Your task to perform on an android device: turn off priority inbox in the gmail app Image 0: 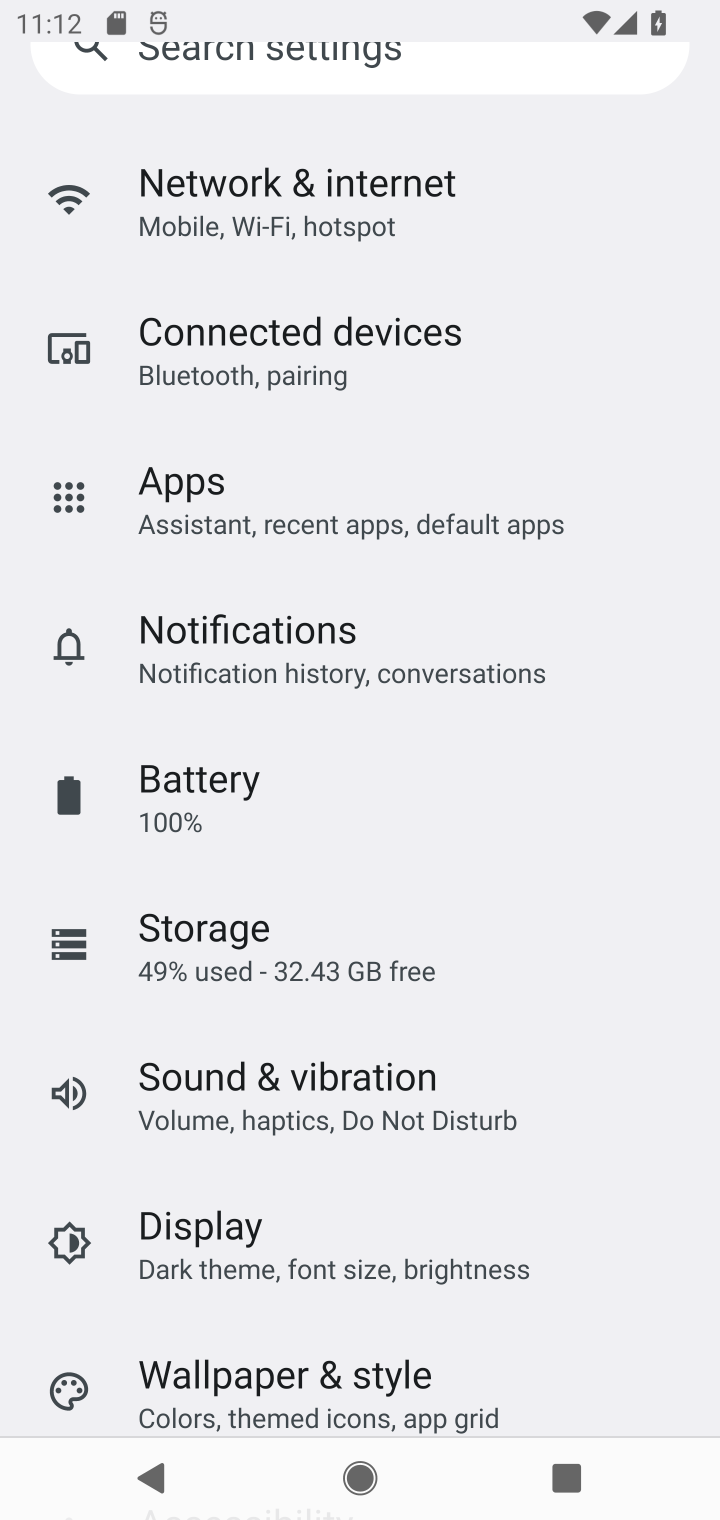
Step 0: press home button
Your task to perform on an android device: turn off priority inbox in the gmail app Image 1: 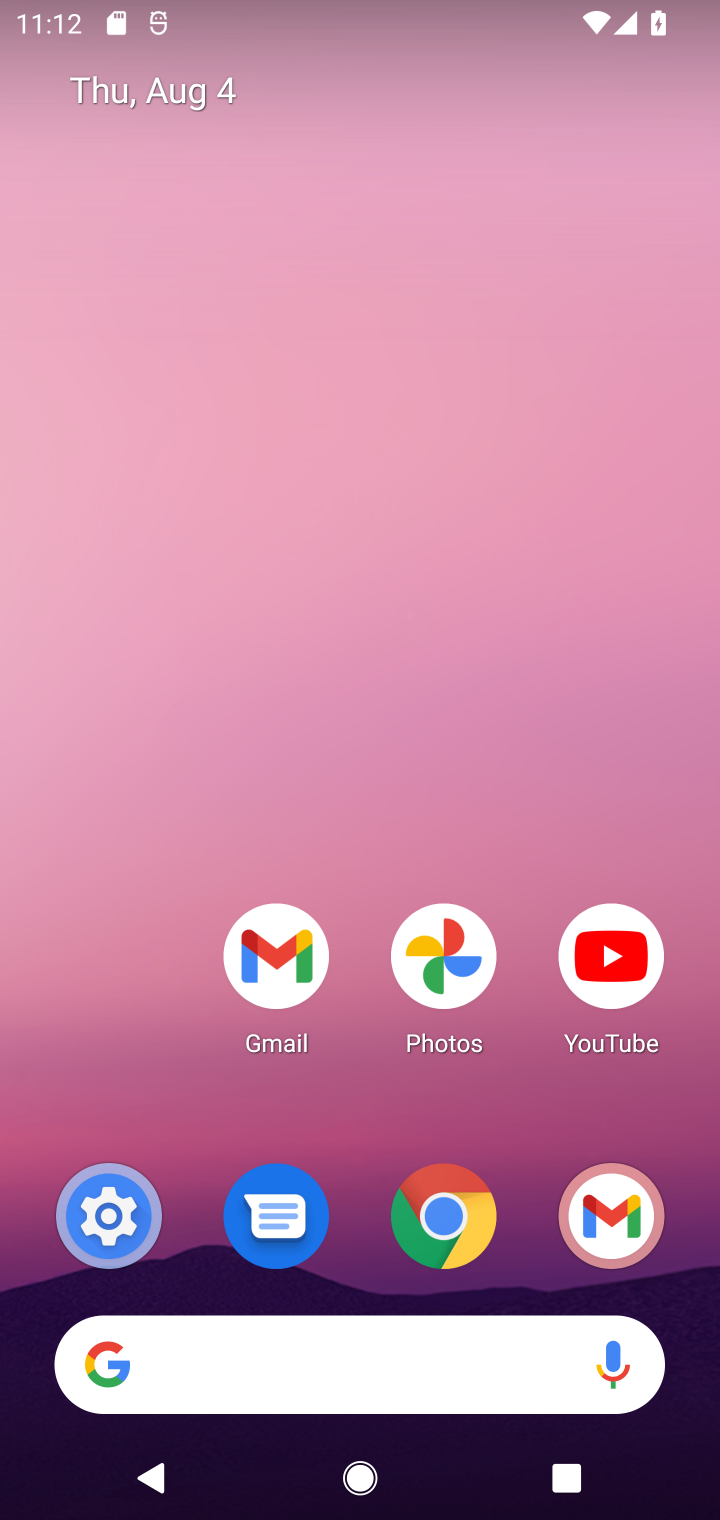
Step 1: drag from (125, 1018) to (307, 0)
Your task to perform on an android device: turn off priority inbox in the gmail app Image 2: 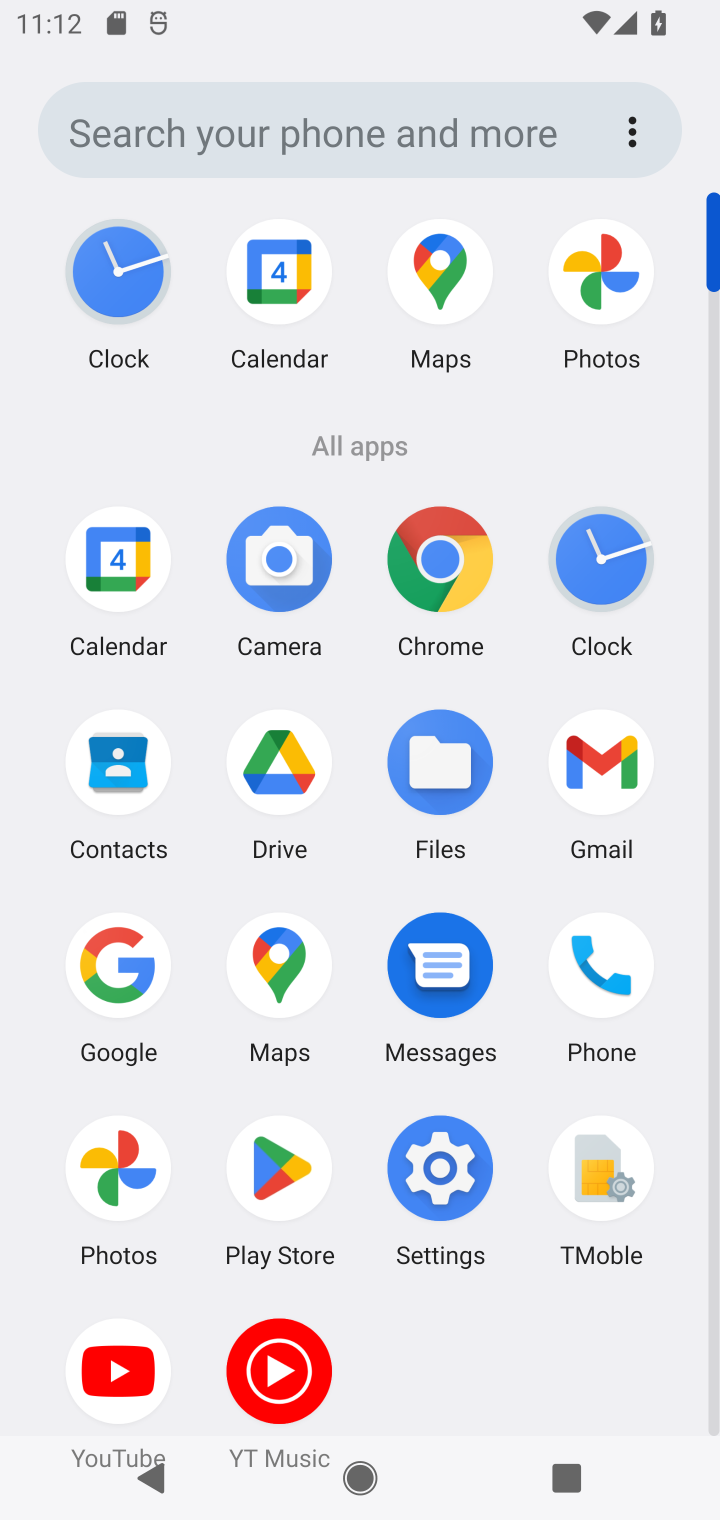
Step 2: click (595, 755)
Your task to perform on an android device: turn off priority inbox in the gmail app Image 3: 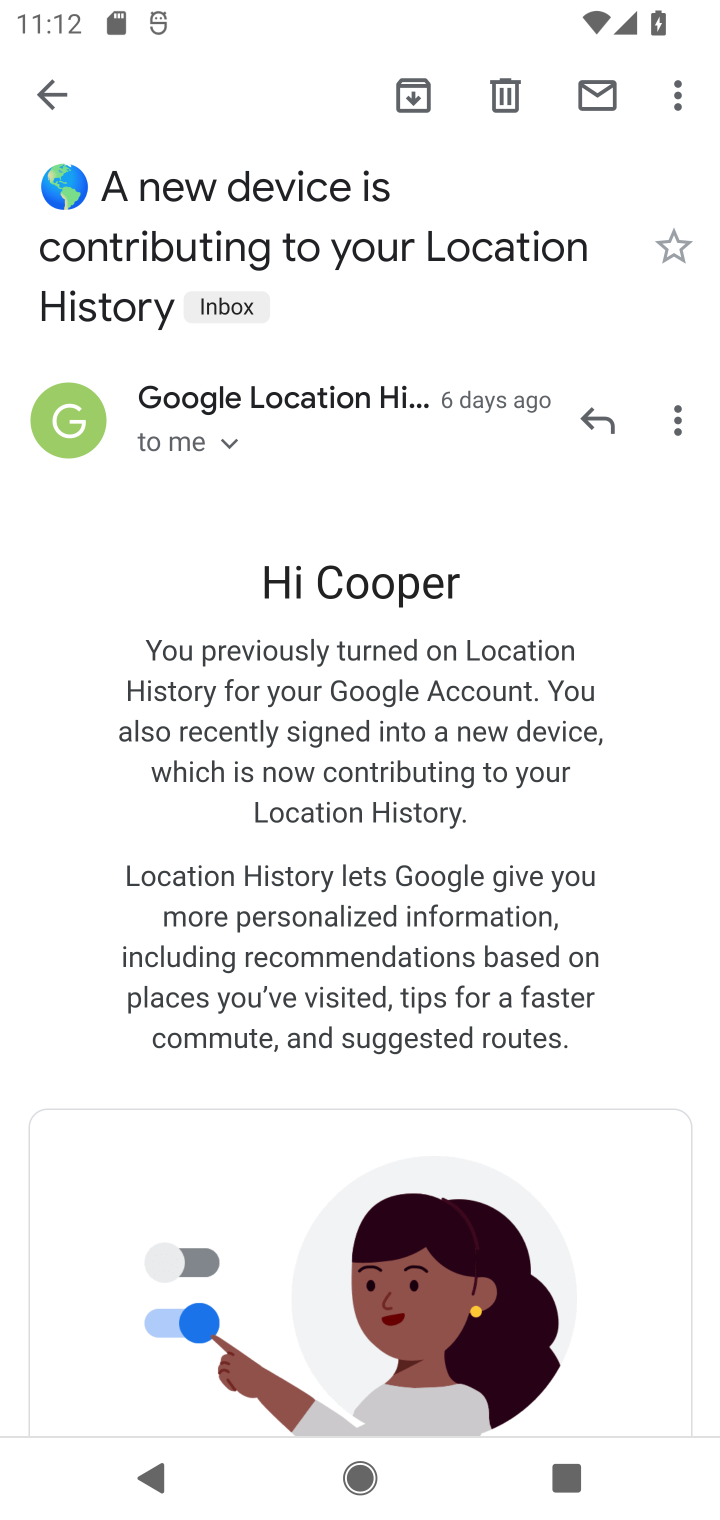
Step 3: click (46, 84)
Your task to perform on an android device: turn off priority inbox in the gmail app Image 4: 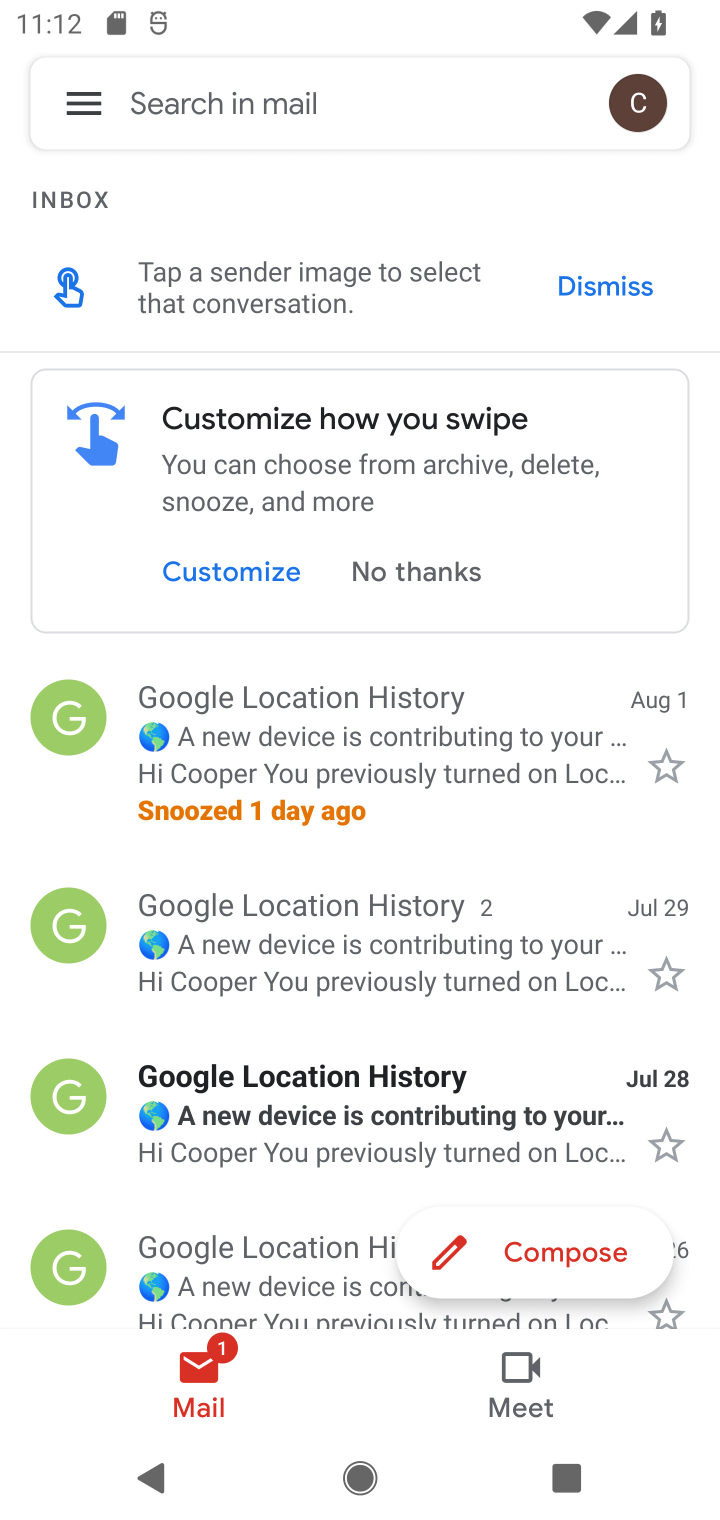
Step 4: click (87, 102)
Your task to perform on an android device: turn off priority inbox in the gmail app Image 5: 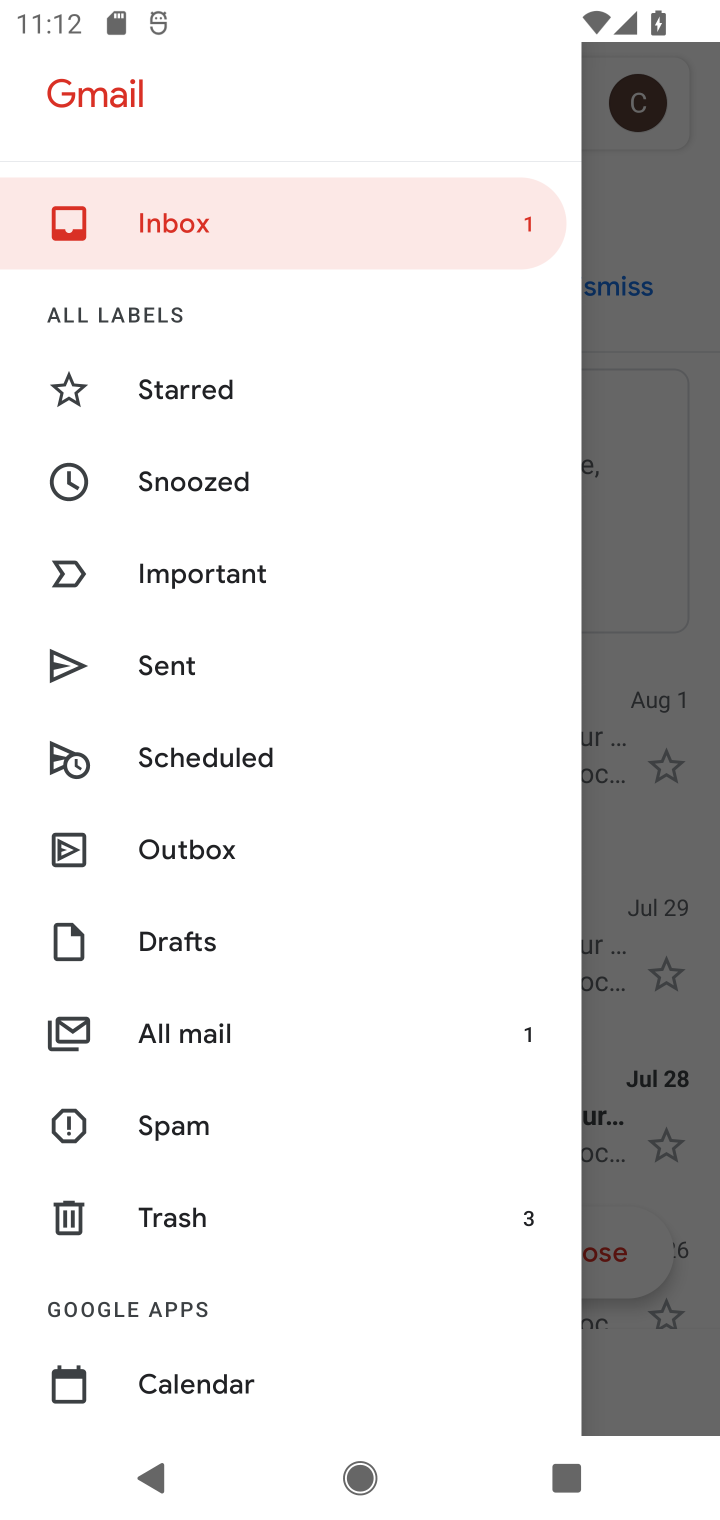
Step 5: drag from (305, 1106) to (399, 269)
Your task to perform on an android device: turn off priority inbox in the gmail app Image 6: 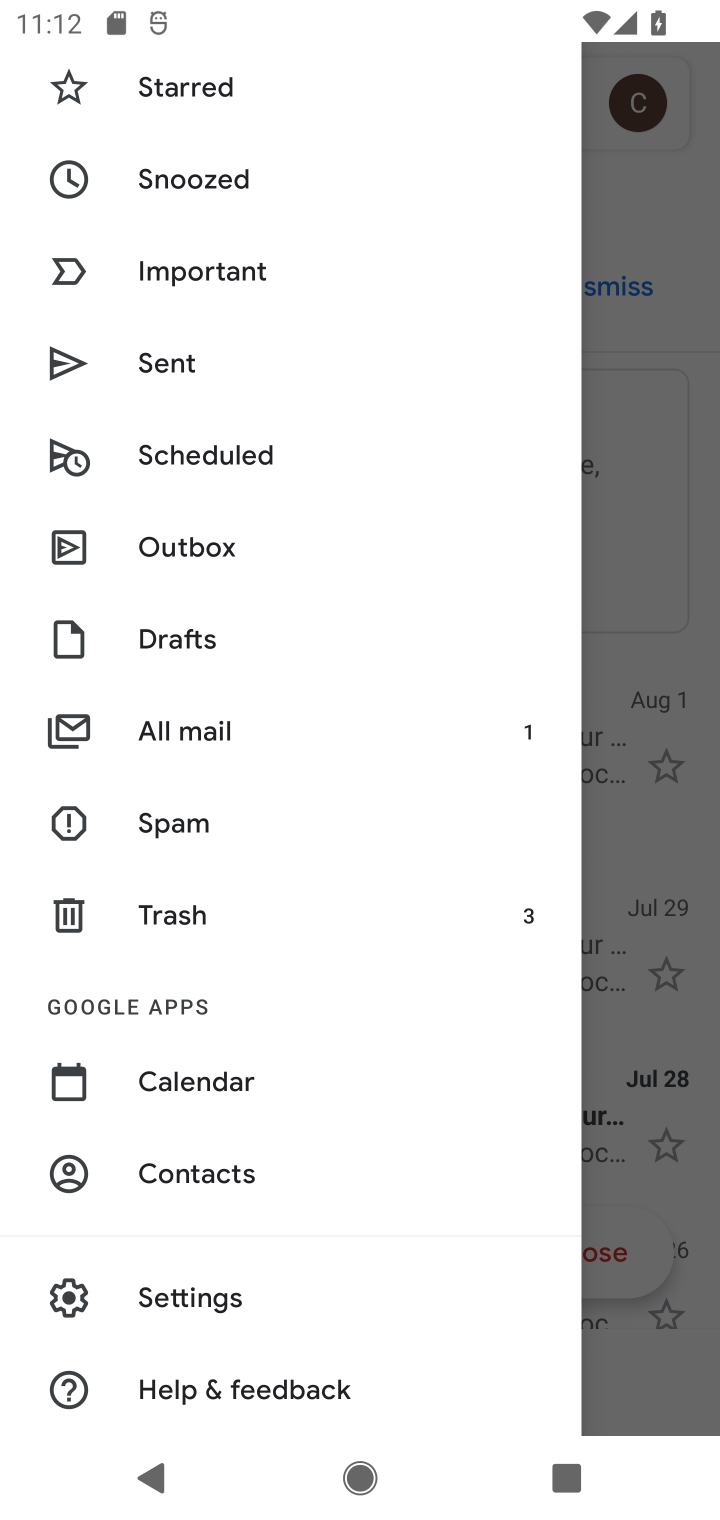
Step 6: click (225, 1303)
Your task to perform on an android device: turn off priority inbox in the gmail app Image 7: 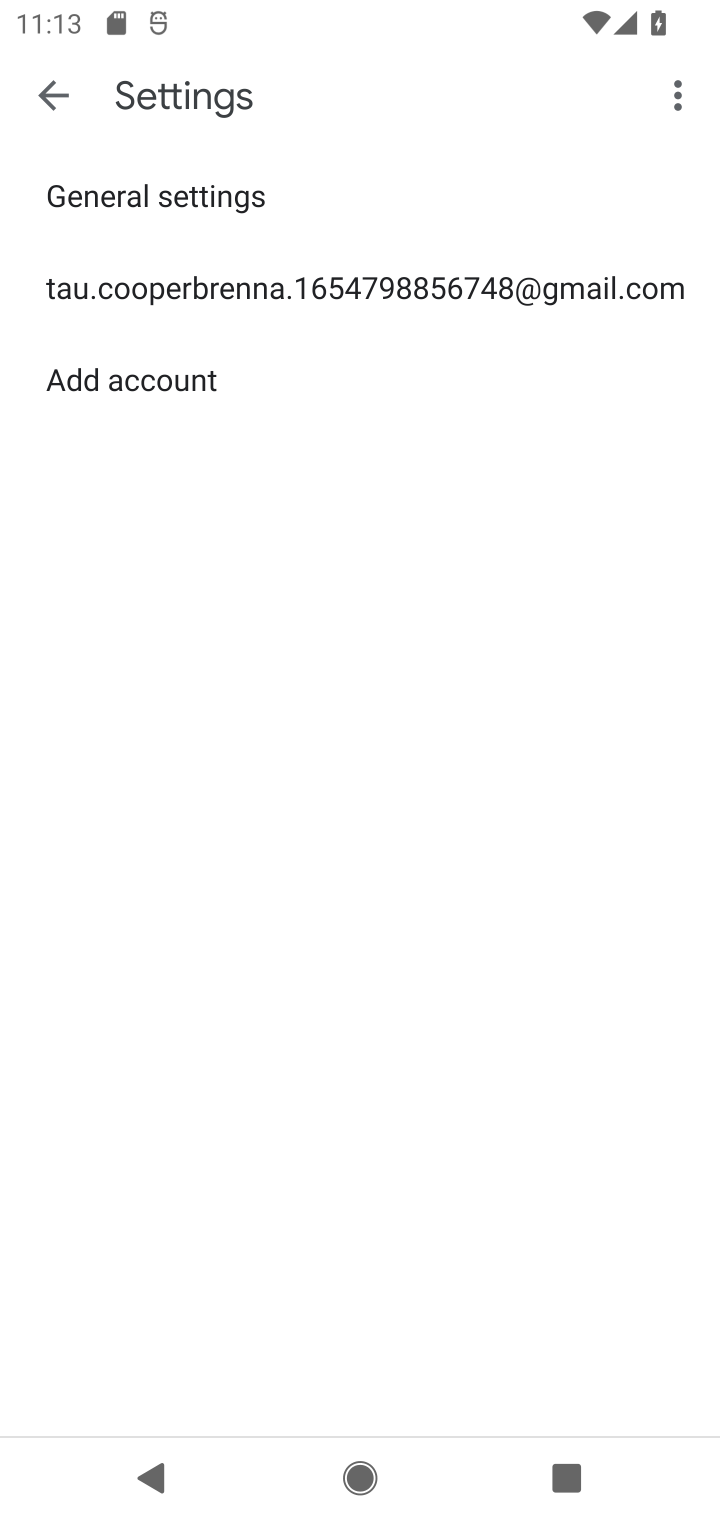
Step 7: click (402, 292)
Your task to perform on an android device: turn off priority inbox in the gmail app Image 8: 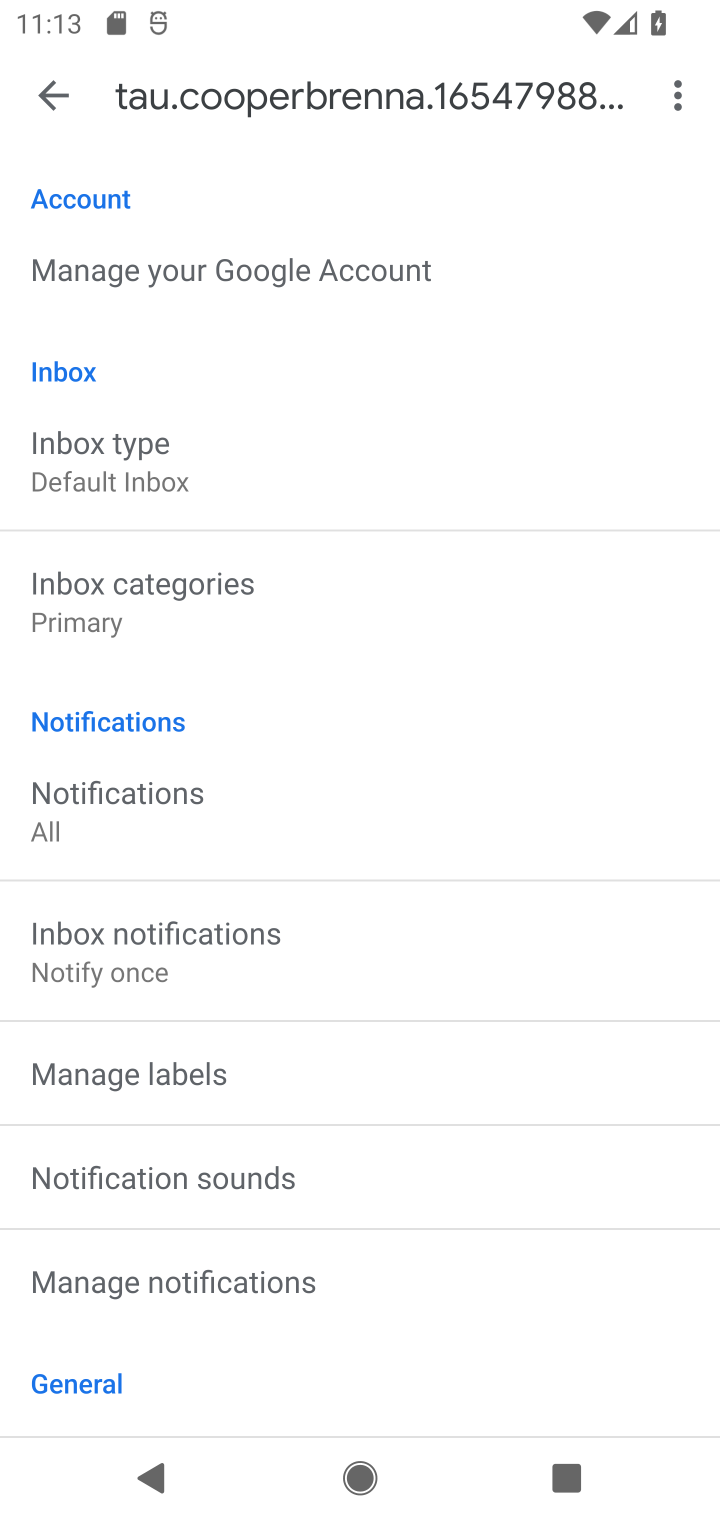
Step 8: click (133, 458)
Your task to perform on an android device: turn off priority inbox in the gmail app Image 9: 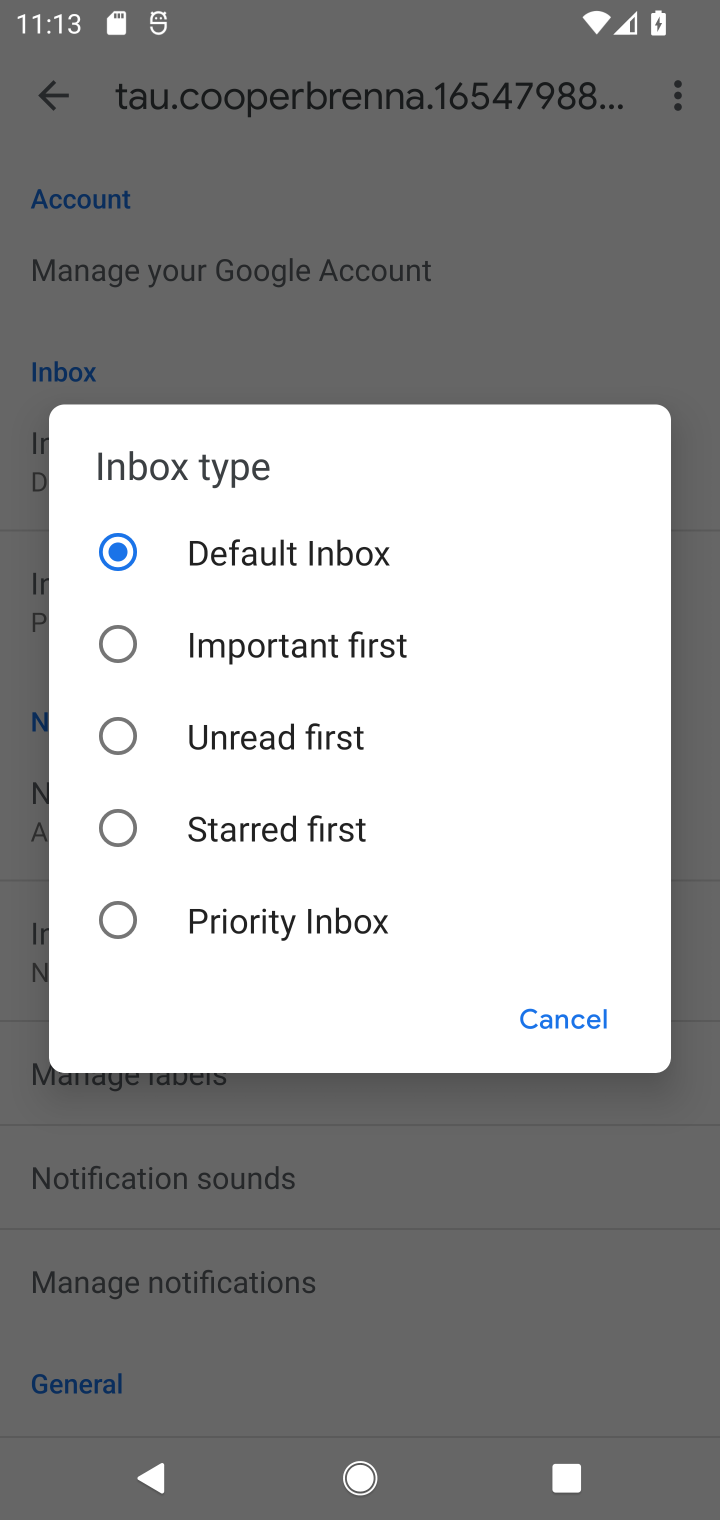
Step 9: click (201, 554)
Your task to perform on an android device: turn off priority inbox in the gmail app Image 10: 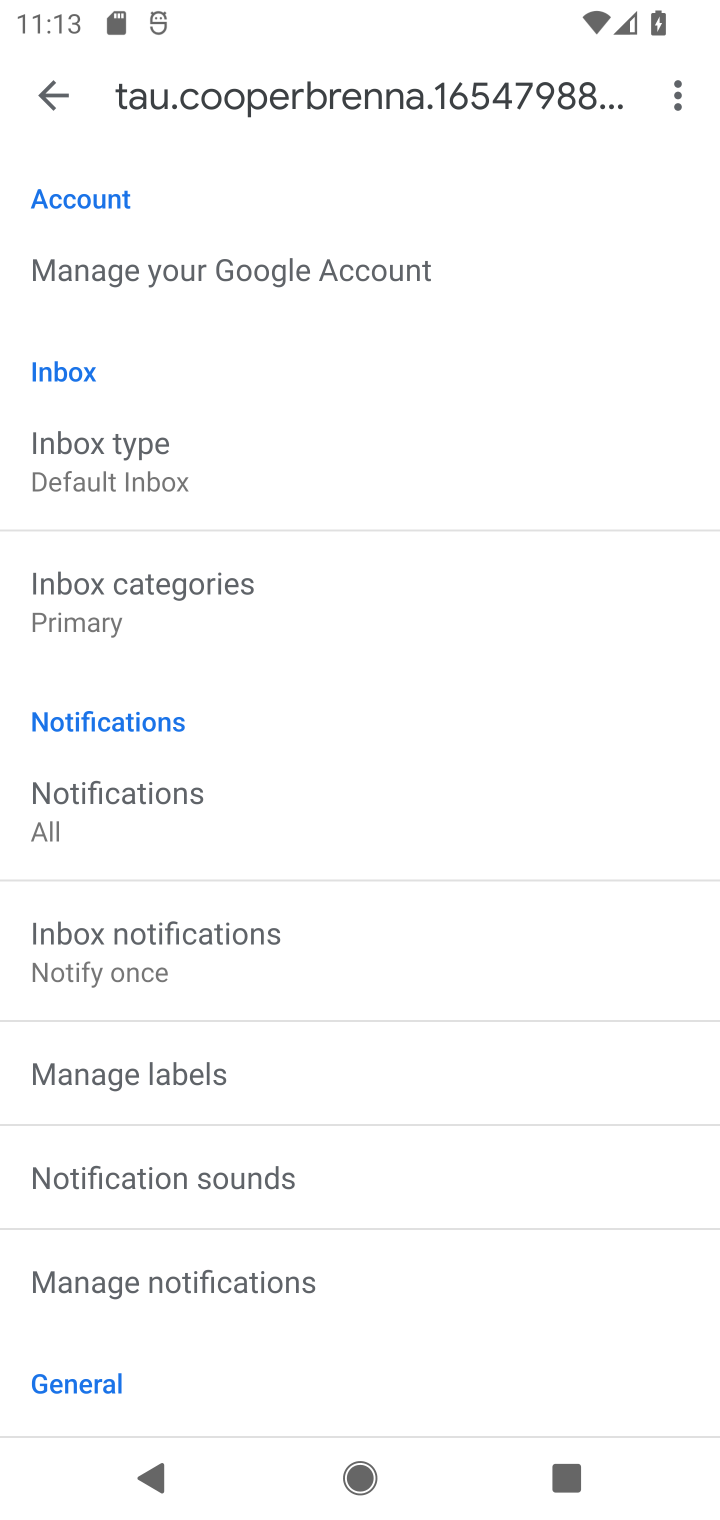
Step 10: task complete